Your task to perform on an android device: turn off wifi Image 0: 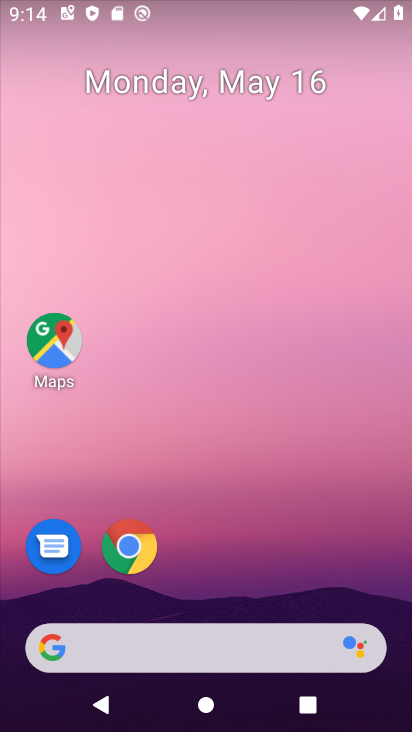
Step 0: drag from (282, 645) to (283, 136)
Your task to perform on an android device: turn off wifi Image 1: 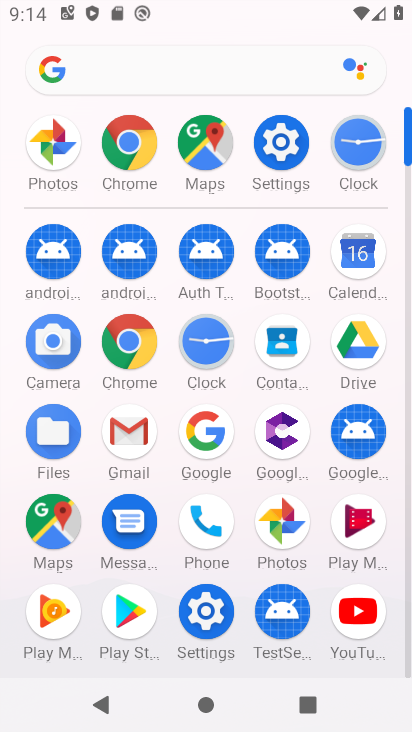
Step 1: click (297, 139)
Your task to perform on an android device: turn off wifi Image 2: 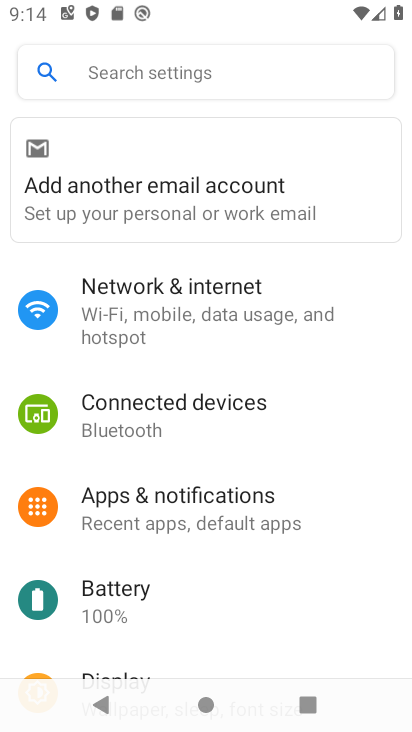
Step 2: click (160, 298)
Your task to perform on an android device: turn off wifi Image 3: 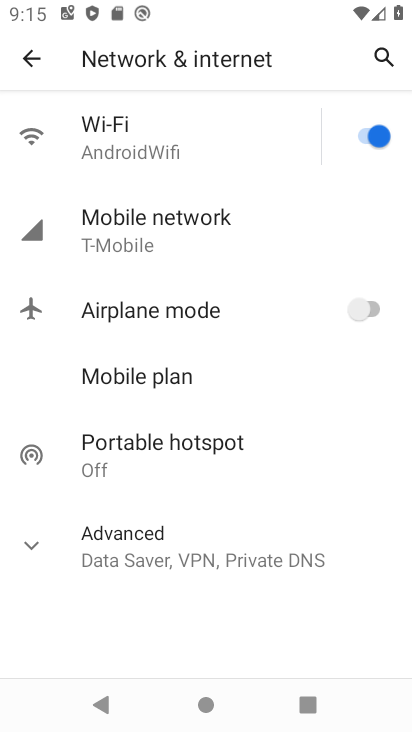
Step 3: click (378, 130)
Your task to perform on an android device: turn off wifi Image 4: 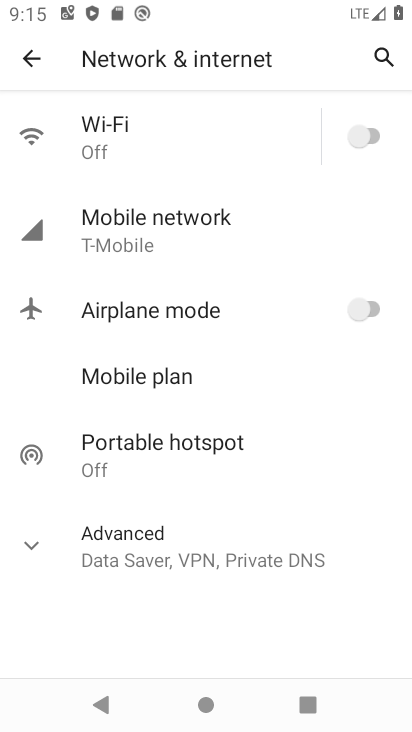
Step 4: task complete